Your task to perform on an android device: turn off data saver in the chrome app Image 0: 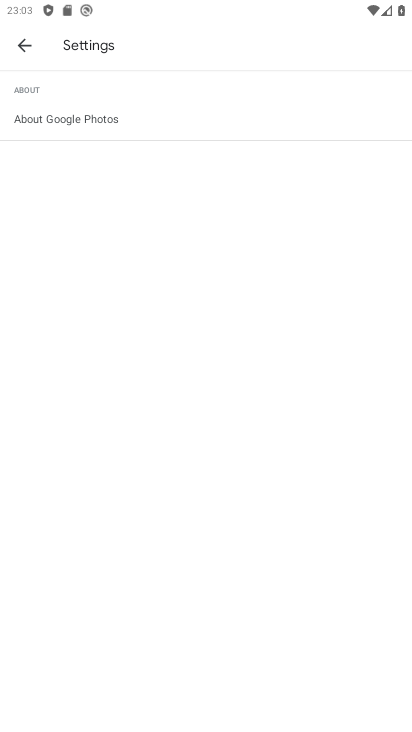
Step 0: press home button
Your task to perform on an android device: turn off data saver in the chrome app Image 1: 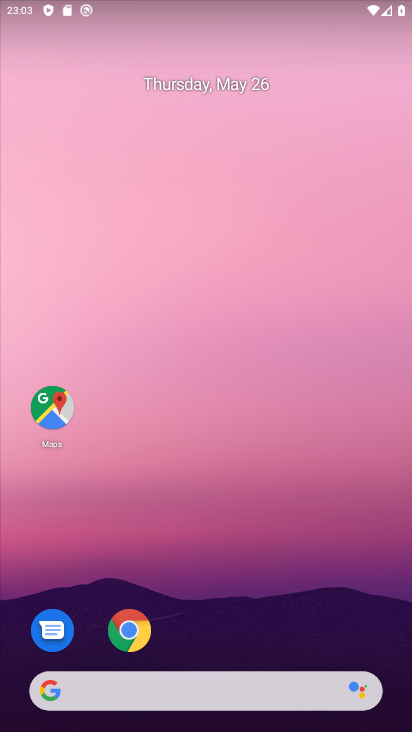
Step 1: click (130, 628)
Your task to perform on an android device: turn off data saver in the chrome app Image 2: 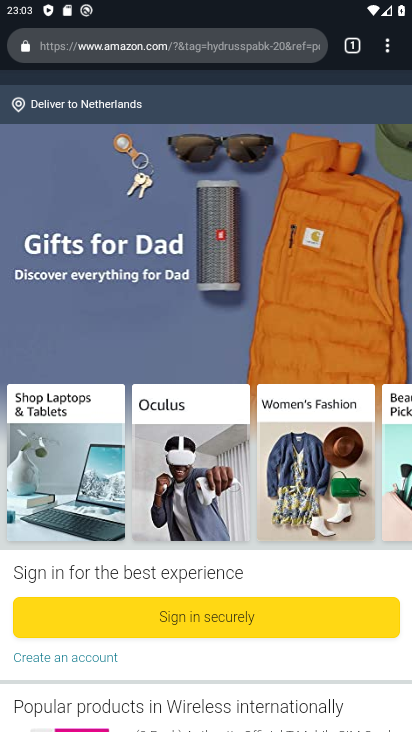
Step 2: click (392, 46)
Your task to perform on an android device: turn off data saver in the chrome app Image 3: 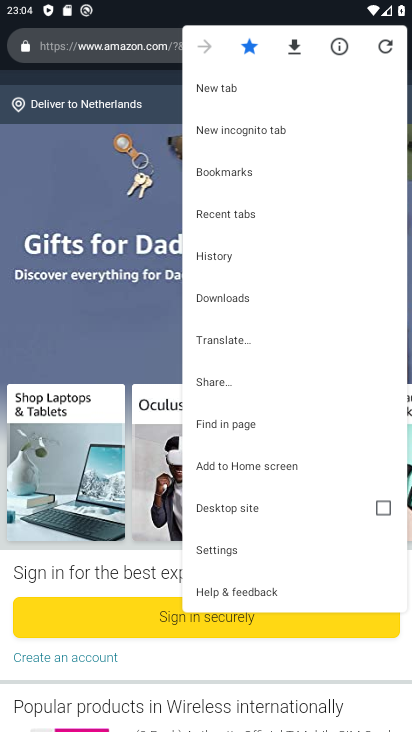
Step 3: click (224, 548)
Your task to perform on an android device: turn off data saver in the chrome app Image 4: 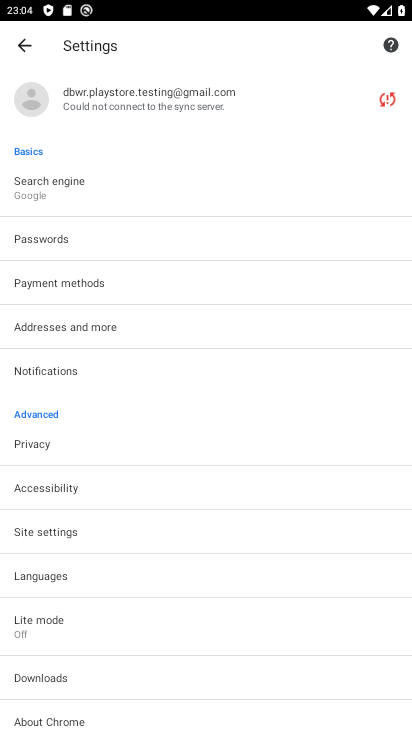
Step 4: click (62, 618)
Your task to perform on an android device: turn off data saver in the chrome app Image 5: 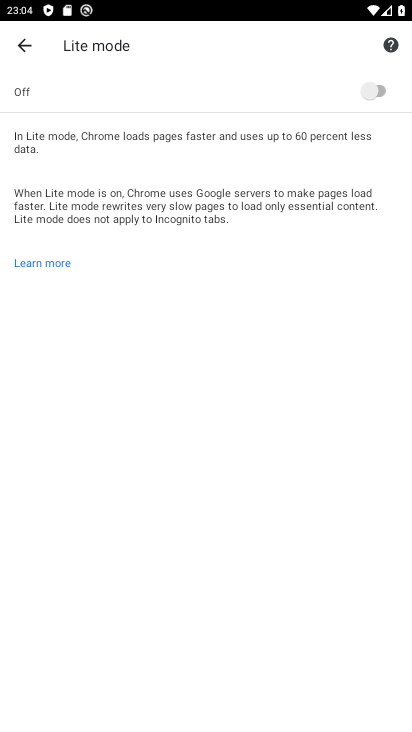
Step 5: task complete